Your task to perform on an android device: When is my next meeting? Image 0: 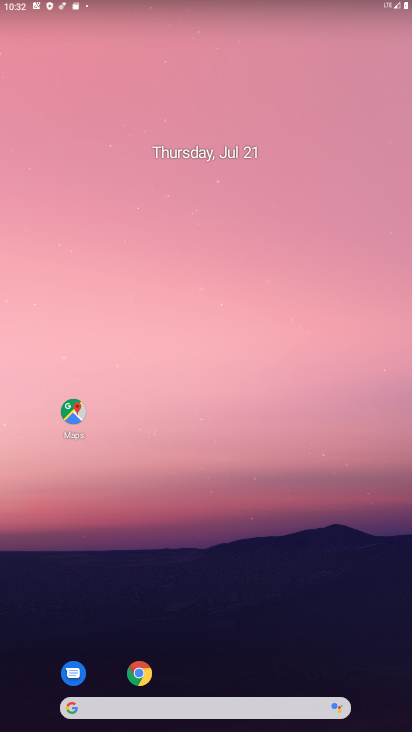
Step 0: drag from (248, 663) to (190, 263)
Your task to perform on an android device: When is my next meeting? Image 1: 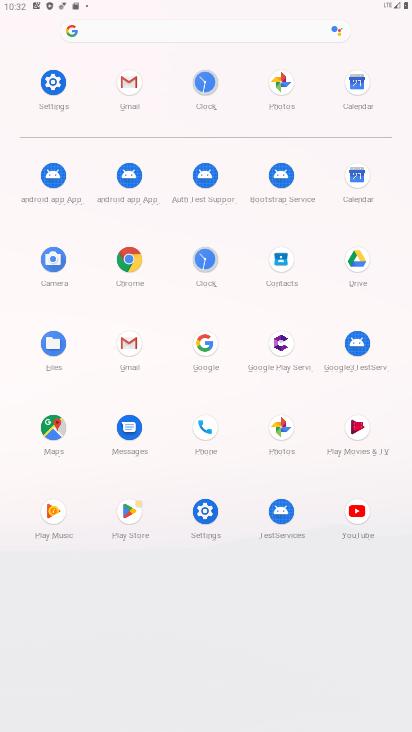
Step 1: click (356, 93)
Your task to perform on an android device: When is my next meeting? Image 2: 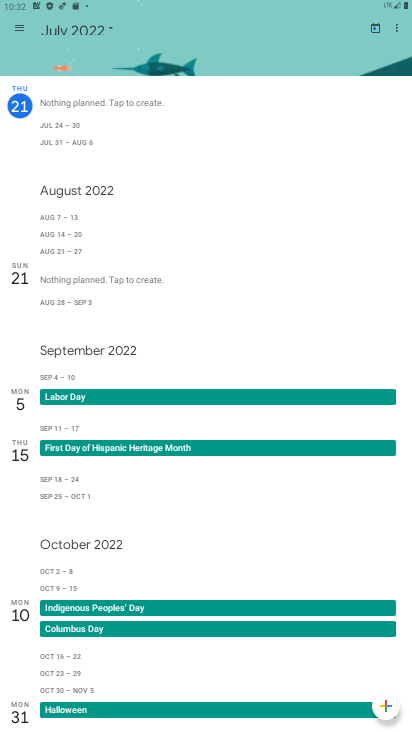
Step 2: click (107, 31)
Your task to perform on an android device: When is my next meeting? Image 3: 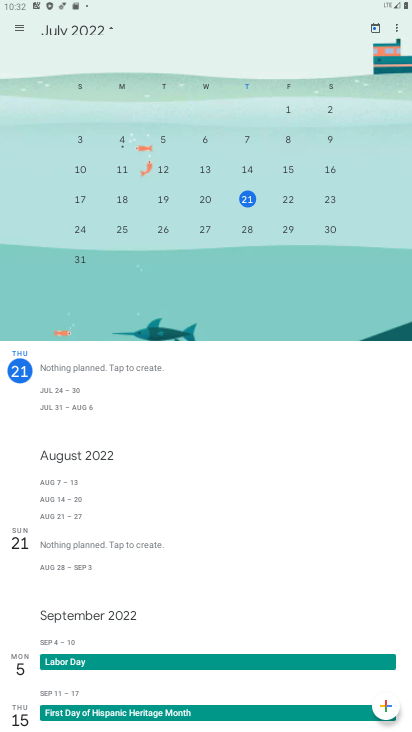
Step 3: click (281, 199)
Your task to perform on an android device: When is my next meeting? Image 4: 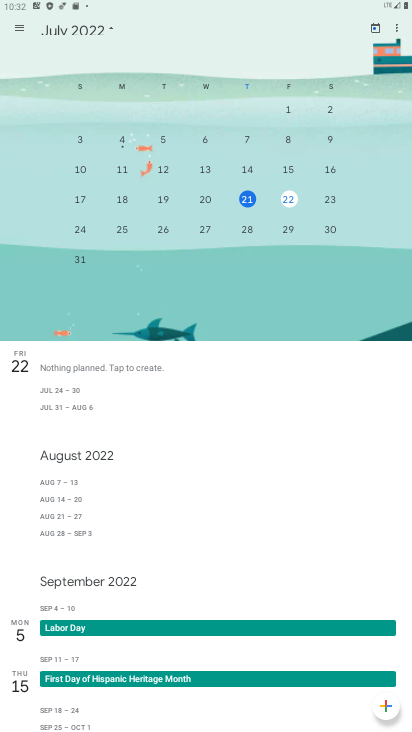
Step 4: click (297, 198)
Your task to perform on an android device: When is my next meeting? Image 5: 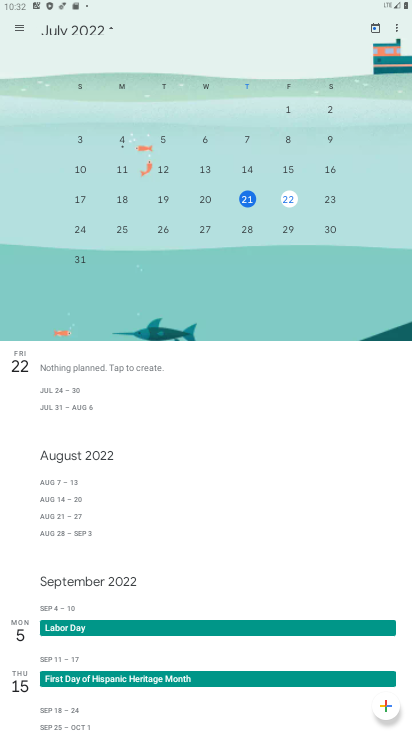
Step 5: click (76, 217)
Your task to perform on an android device: When is my next meeting? Image 6: 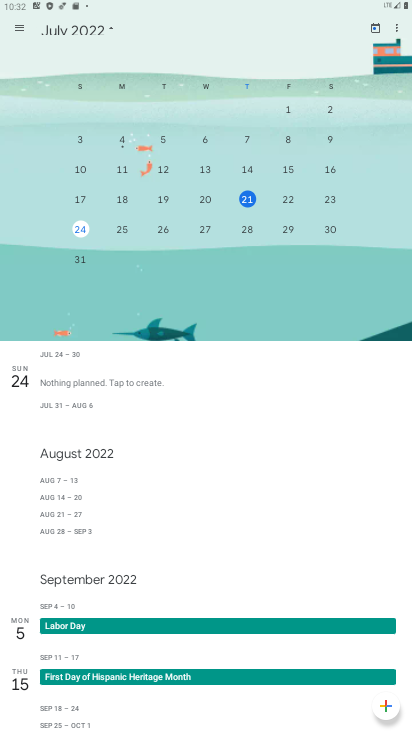
Step 6: task complete